Your task to perform on an android device: change the clock display to show seconds Image 0: 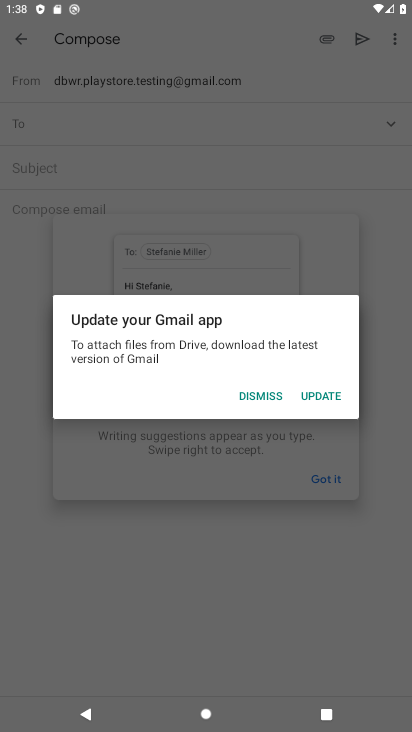
Step 0: press home button
Your task to perform on an android device: change the clock display to show seconds Image 1: 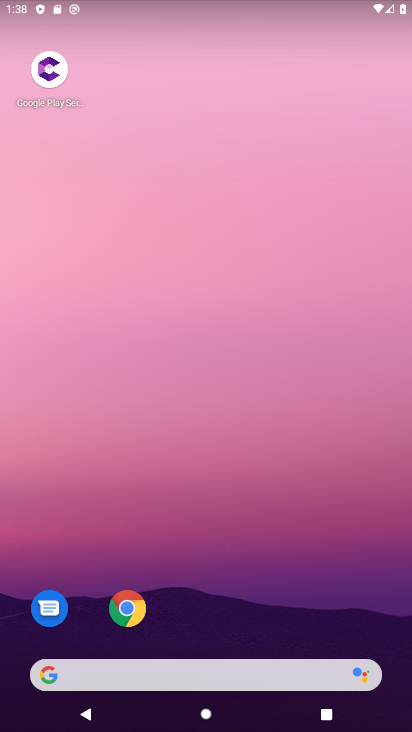
Step 1: drag from (241, 587) to (216, 2)
Your task to perform on an android device: change the clock display to show seconds Image 2: 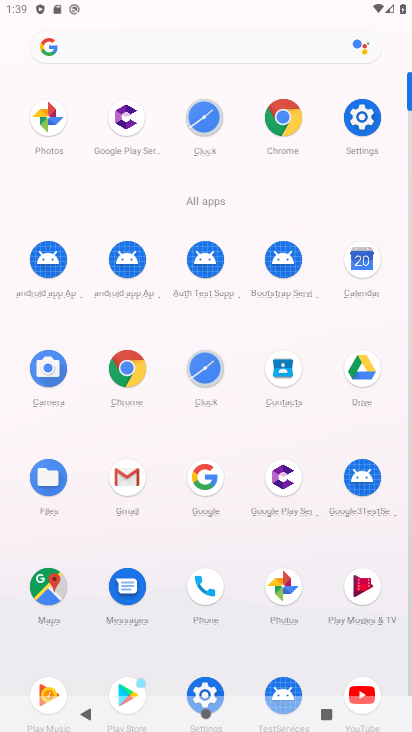
Step 2: click (203, 367)
Your task to perform on an android device: change the clock display to show seconds Image 3: 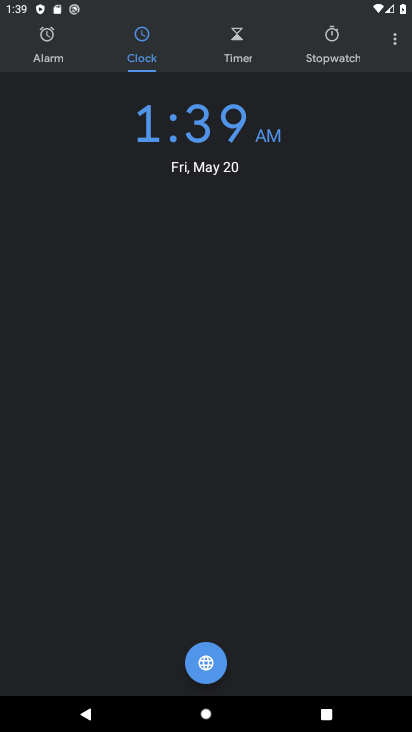
Step 3: click (397, 42)
Your task to perform on an android device: change the clock display to show seconds Image 4: 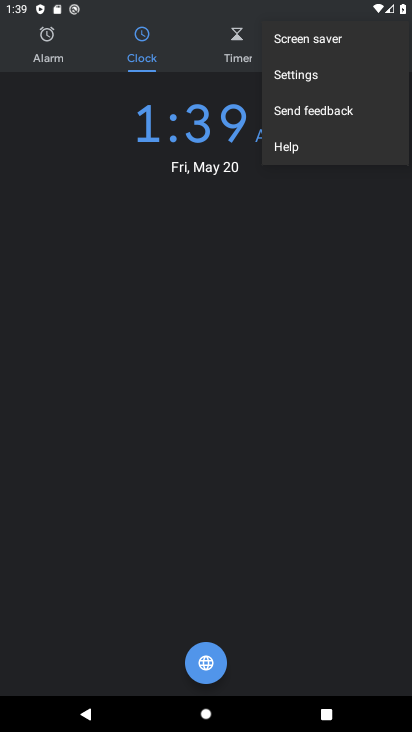
Step 4: click (314, 69)
Your task to perform on an android device: change the clock display to show seconds Image 5: 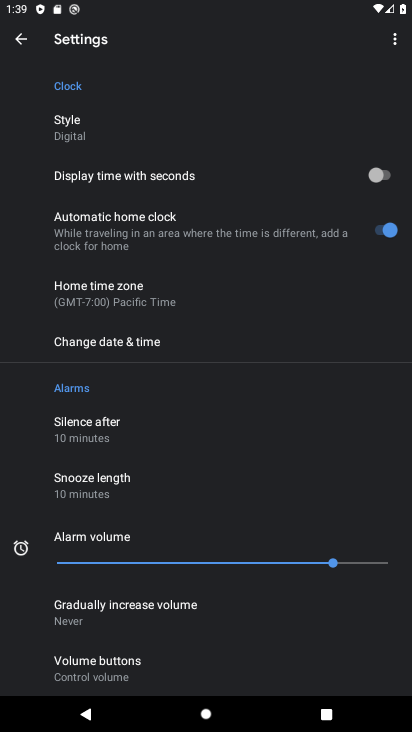
Step 5: click (377, 178)
Your task to perform on an android device: change the clock display to show seconds Image 6: 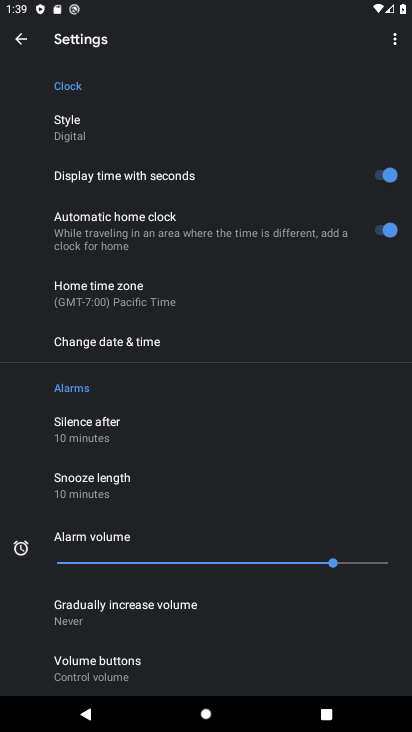
Step 6: task complete